Your task to perform on an android device: Open Youtube and go to the subscriptions tab Image 0: 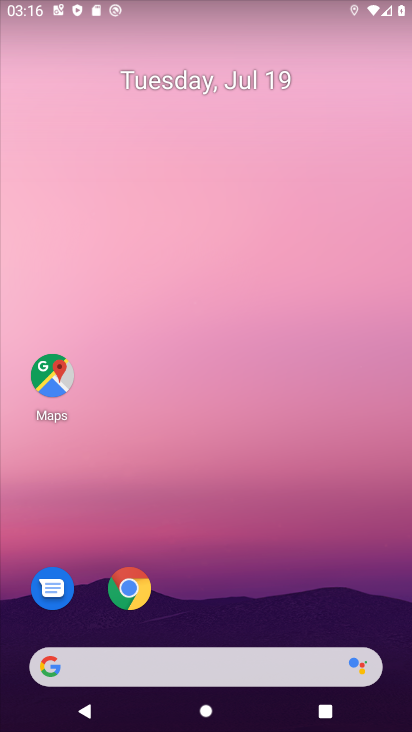
Step 0: drag from (245, 580) to (188, 194)
Your task to perform on an android device: Open Youtube and go to the subscriptions tab Image 1: 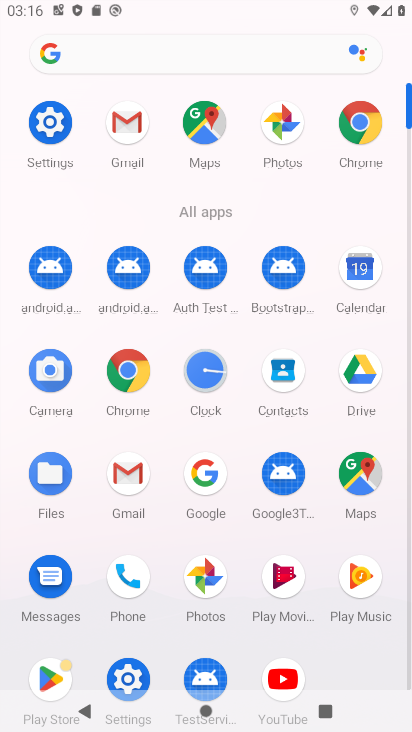
Step 1: click (280, 671)
Your task to perform on an android device: Open Youtube and go to the subscriptions tab Image 2: 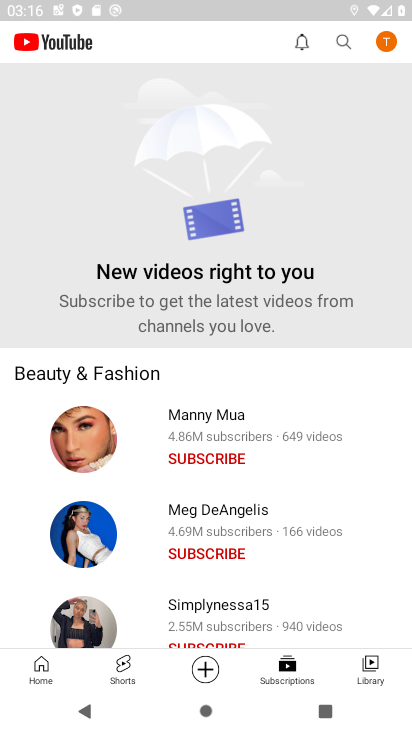
Step 2: click (289, 675)
Your task to perform on an android device: Open Youtube and go to the subscriptions tab Image 3: 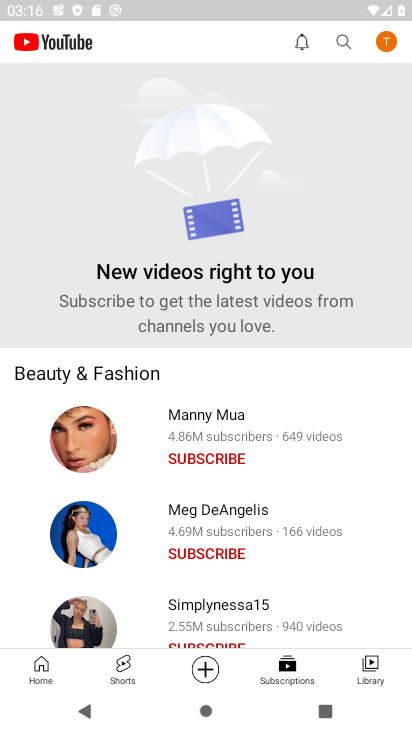
Step 3: task complete